Your task to perform on an android device: set an alarm Image 0: 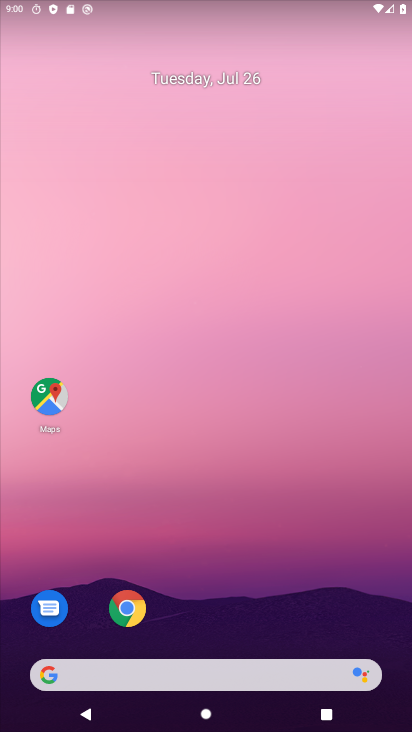
Step 0: click (248, 613)
Your task to perform on an android device: set an alarm Image 1: 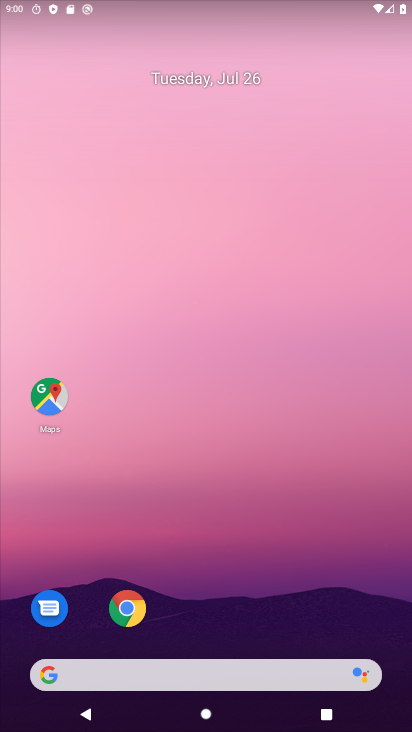
Step 1: drag from (220, 612) to (237, 1)
Your task to perform on an android device: set an alarm Image 2: 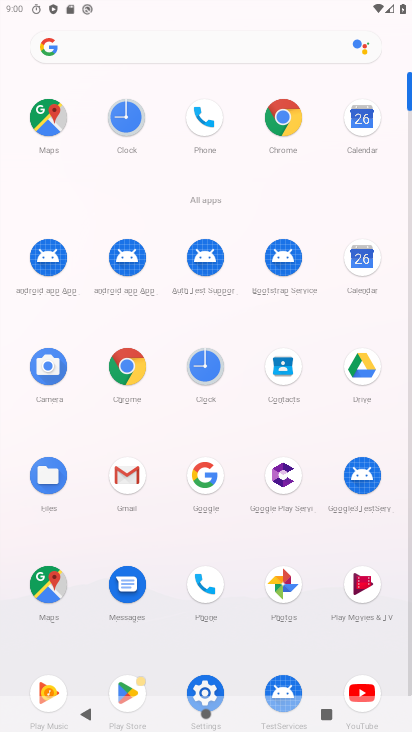
Step 2: click (211, 359)
Your task to perform on an android device: set an alarm Image 3: 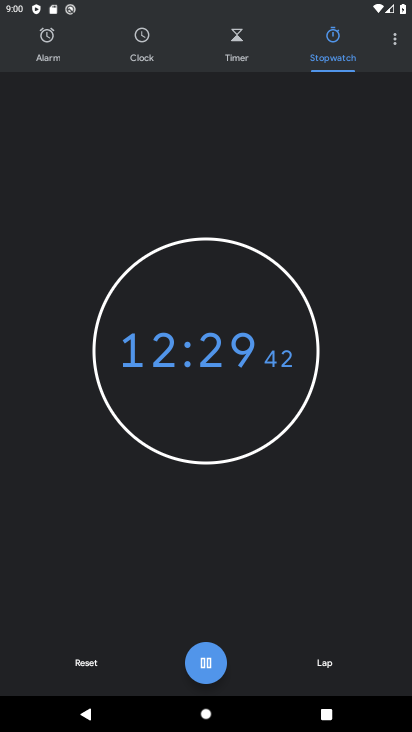
Step 3: click (41, 47)
Your task to perform on an android device: set an alarm Image 4: 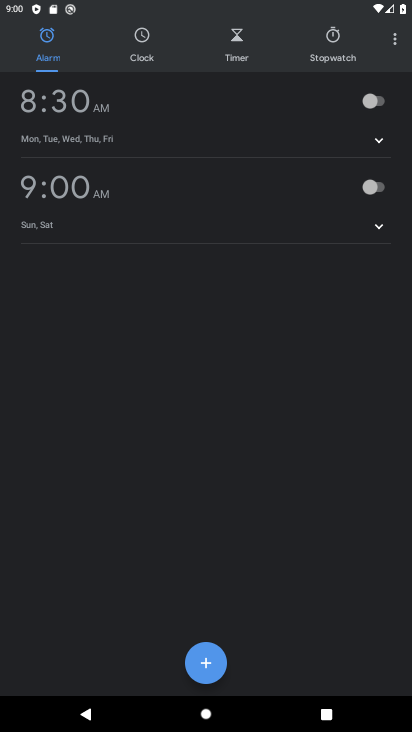
Step 4: click (221, 668)
Your task to perform on an android device: set an alarm Image 5: 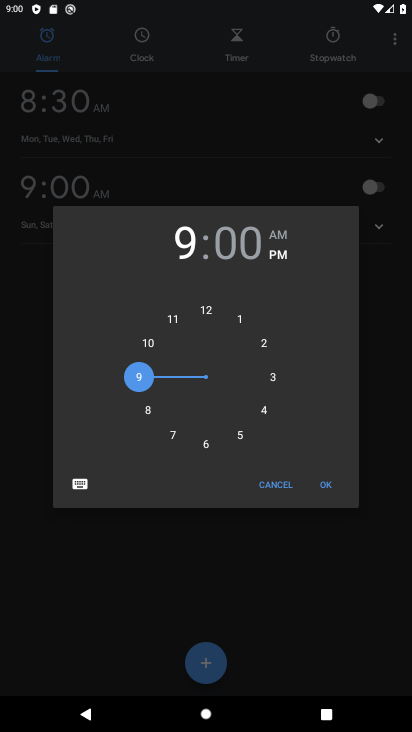
Step 5: click (276, 379)
Your task to perform on an android device: set an alarm Image 6: 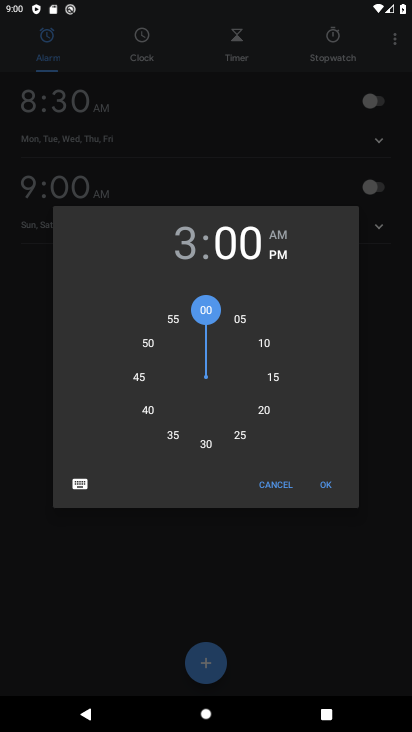
Step 6: click (325, 485)
Your task to perform on an android device: set an alarm Image 7: 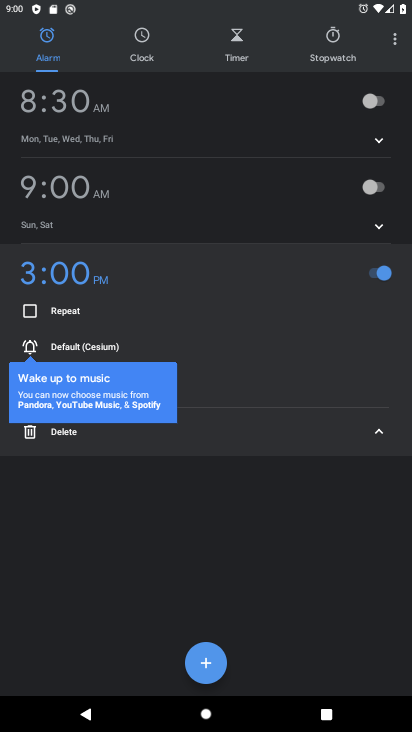
Step 7: task complete